Your task to perform on an android device: Search for "logitech g502" on amazon.com, select the first entry, and add it to the cart. Image 0: 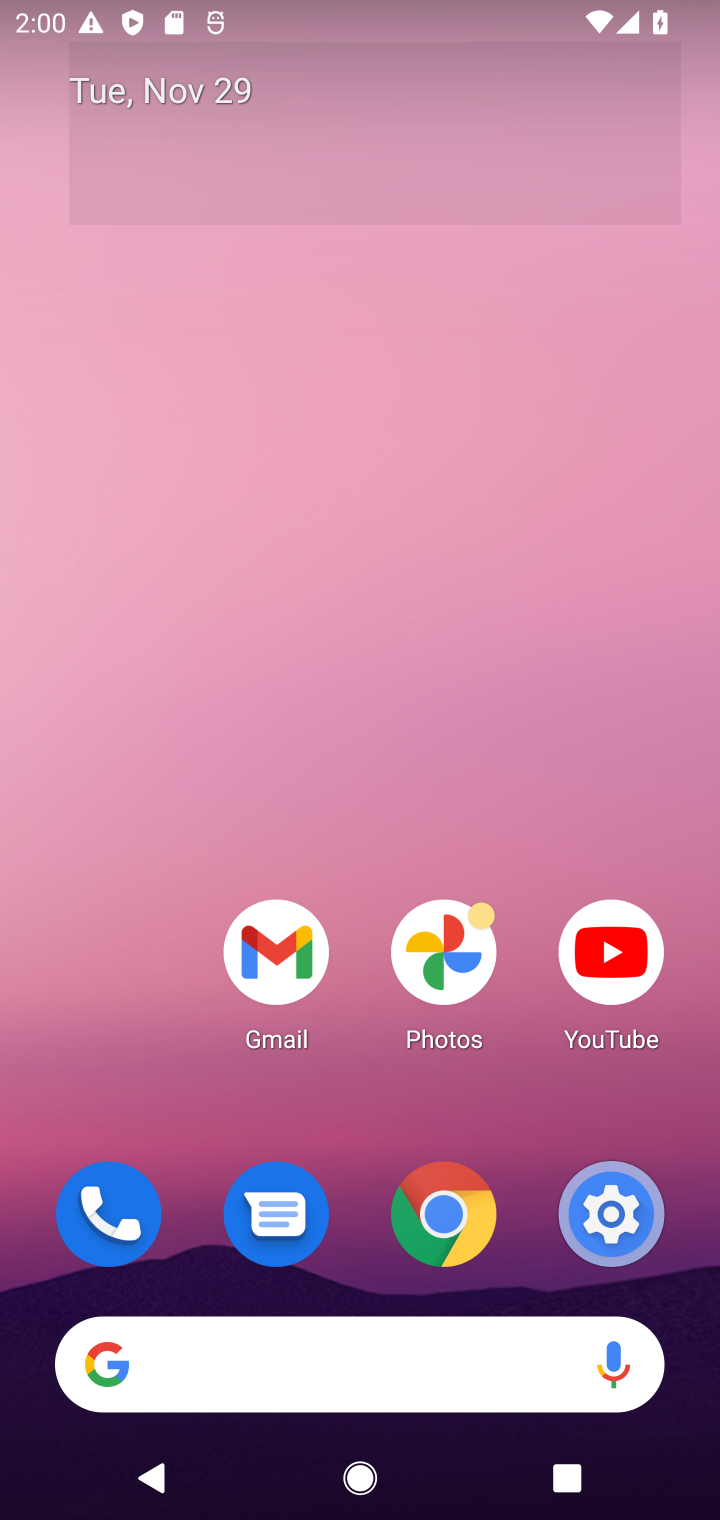
Step 0: type "amazon"
Your task to perform on an android device: Search for "logitech g502" on amazon.com, select the first entry, and add it to the cart. Image 1: 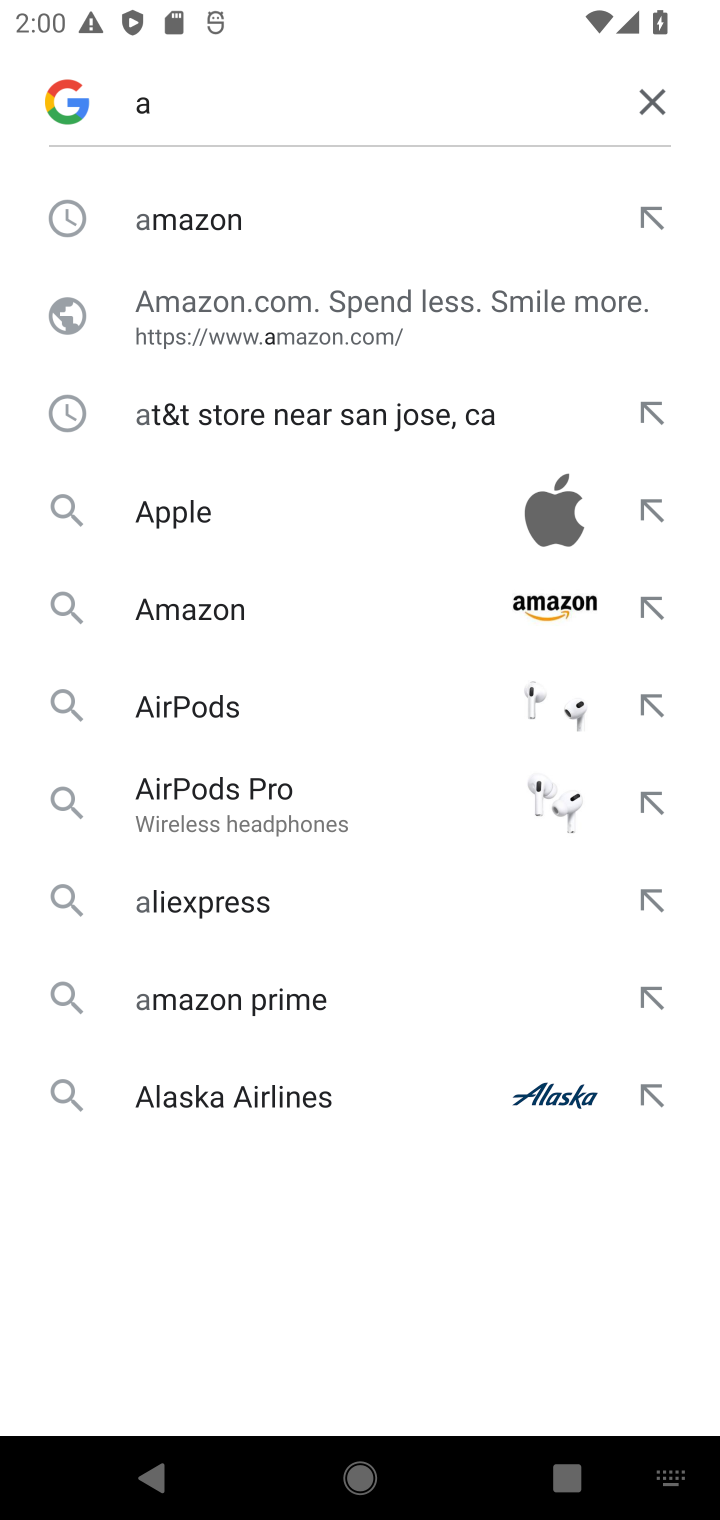
Step 1: click (225, 321)
Your task to perform on an android device: Search for "logitech g502" on amazon.com, select the first entry, and add it to the cart. Image 2: 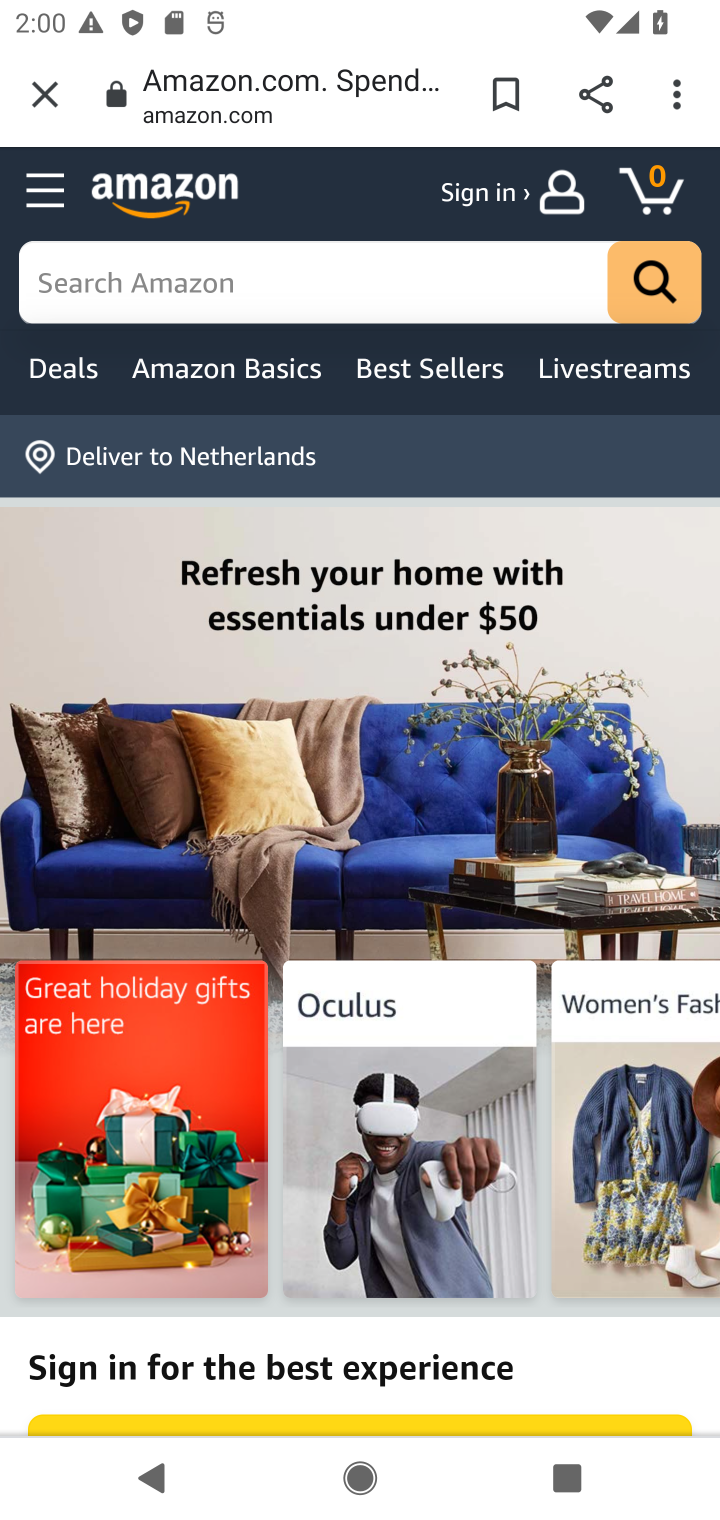
Step 2: click (202, 301)
Your task to perform on an android device: Search for "logitech g502" on amazon.com, select the first entry, and add it to the cart. Image 3: 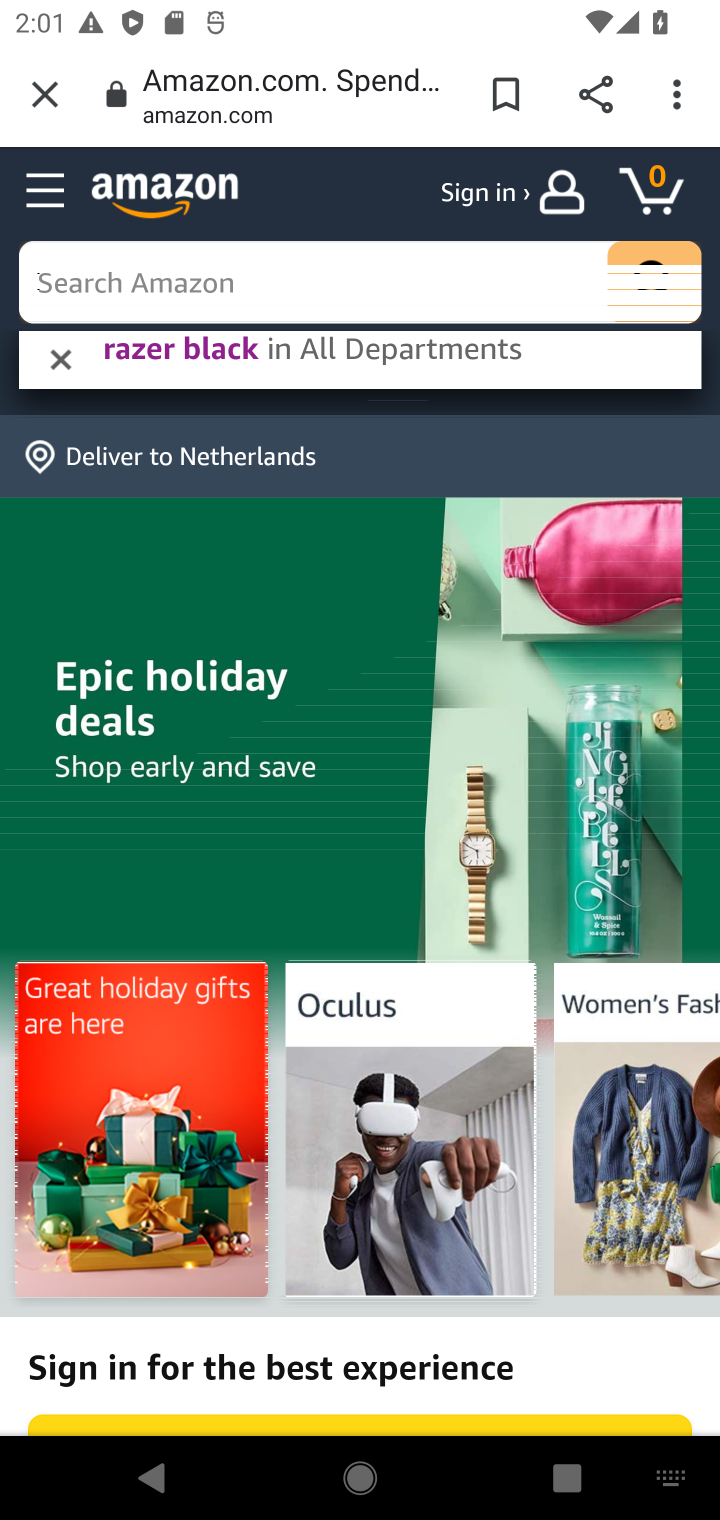
Step 3: type "logitech g502"
Your task to perform on an android device: Search for "logitech g502" on amazon.com, select the first entry, and add it to the cart. Image 4: 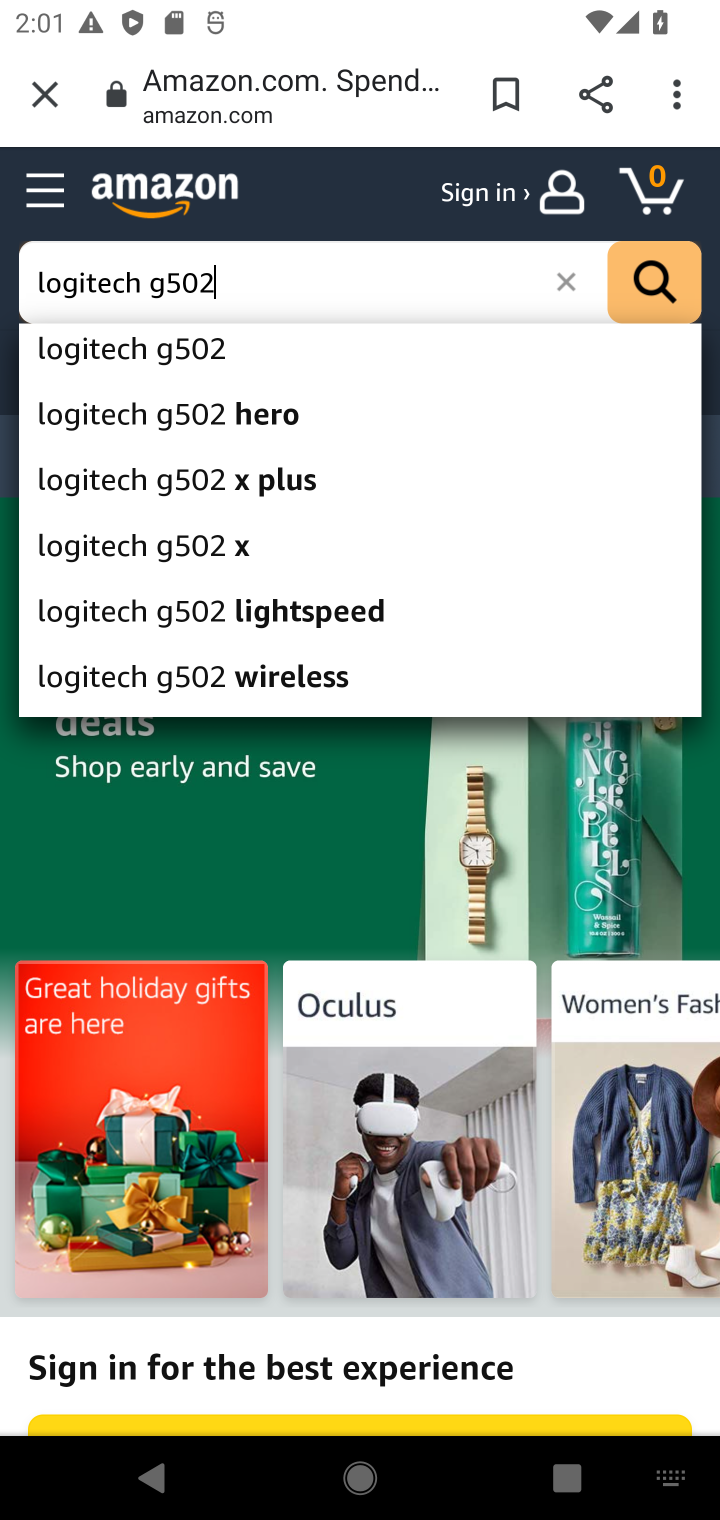
Step 4: click (182, 353)
Your task to perform on an android device: Search for "logitech g502" on amazon.com, select the first entry, and add it to the cart. Image 5: 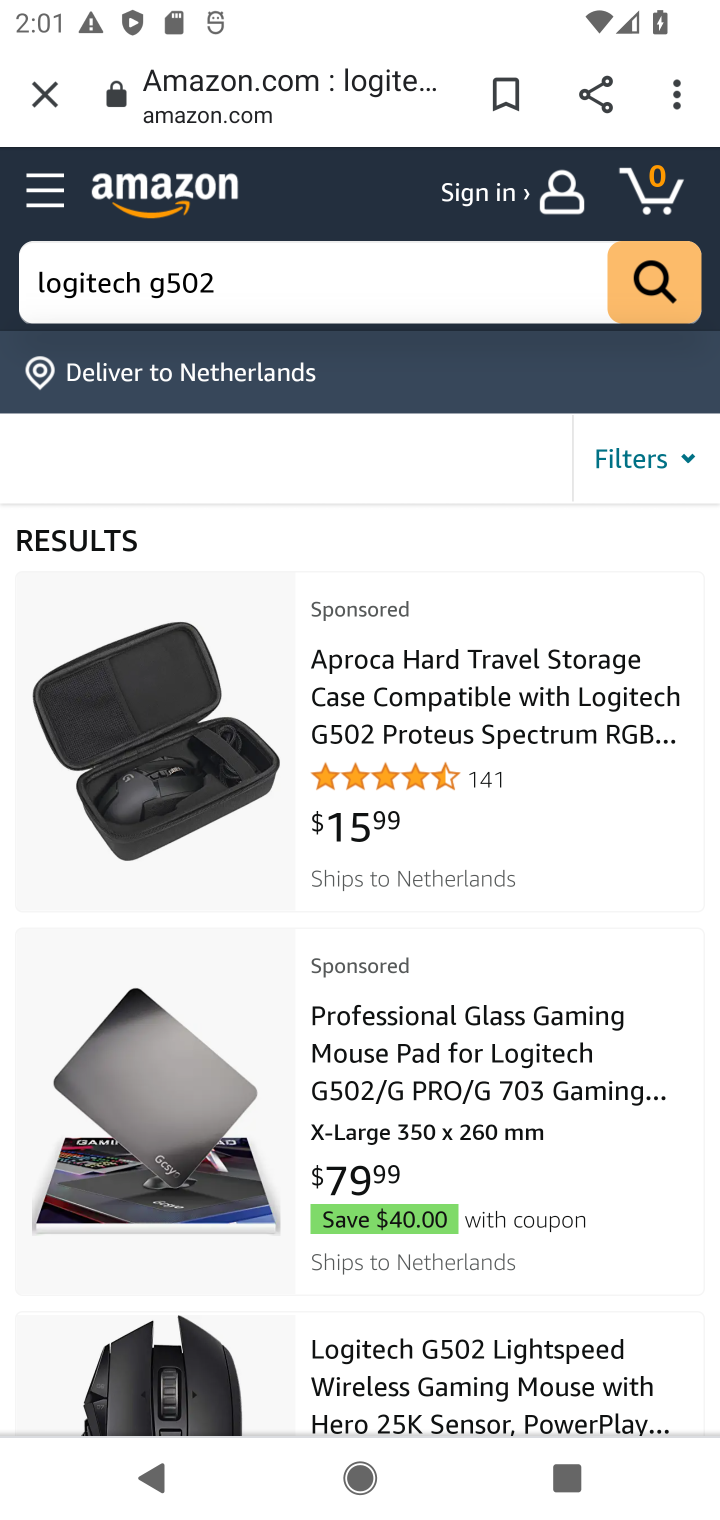
Step 5: task complete